Your task to perform on an android device: turn on bluetooth scan Image 0: 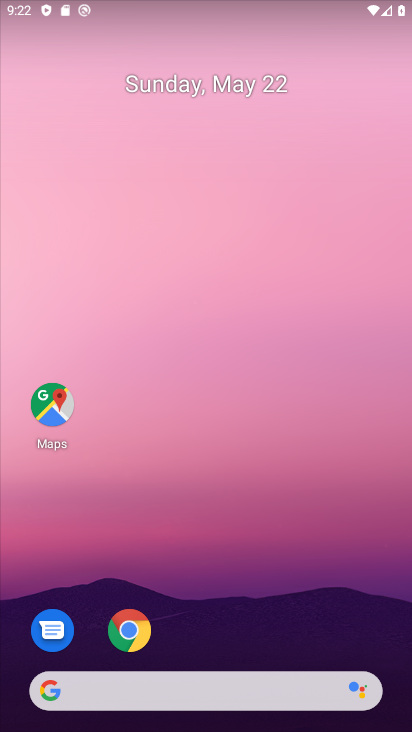
Step 0: drag from (390, 642) to (390, 284)
Your task to perform on an android device: turn on bluetooth scan Image 1: 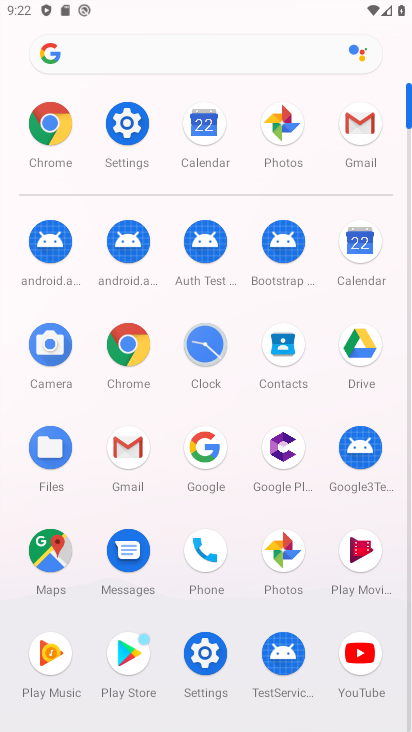
Step 1: click (135, 122)
Your task to perform on an android device: turn on bluetooth scan Image 2: 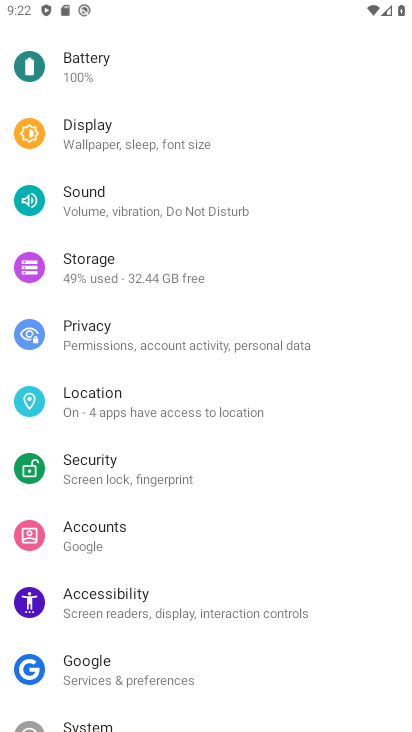
Step 2: click (102, 399)
Your task to perform on an android device: turn on bluetooth scan Image 3: 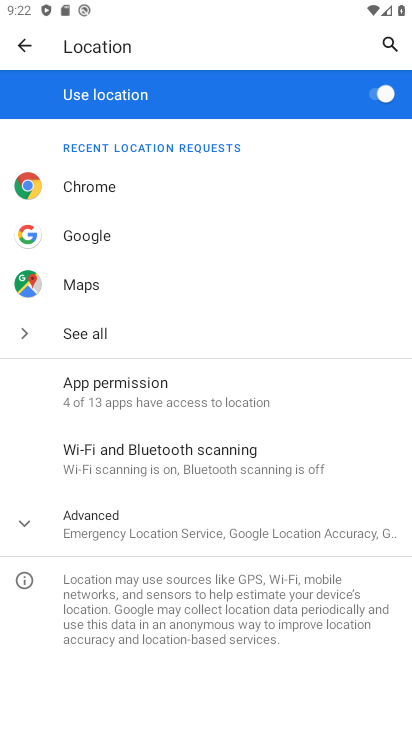
Step 3: click (201, 460)
Your task to perform on an android device: turn on bluetooth scan Image 4: 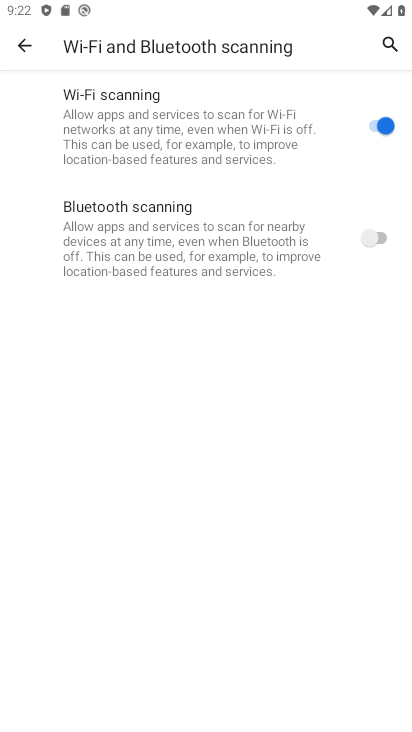
Step 4: click (376, 238)
Your task to perform on an android device: turn on bluetooth scan Image 5: 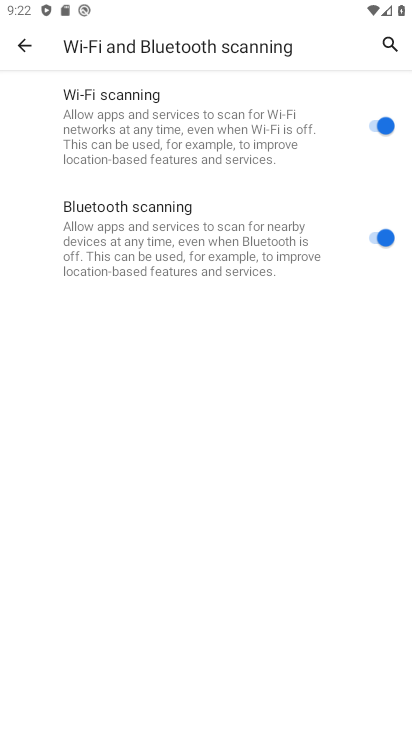
Step 5: task complete